Your task to perform on an android device: turn off translation in the chrome app Image 0: 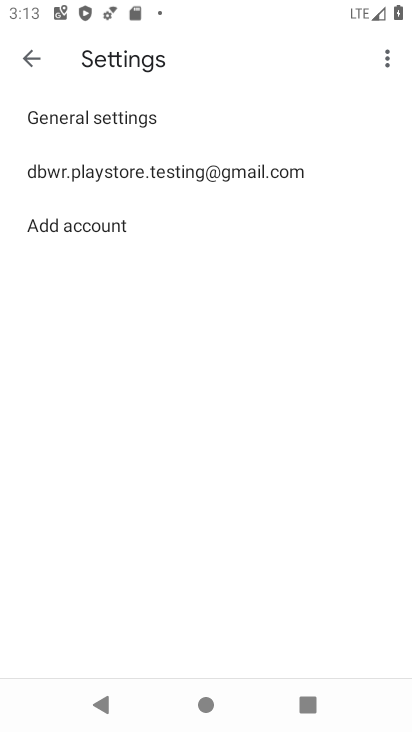
Step 0: press home button
Your task to perform on an android device: turn off translation in the chrome app Image 1: 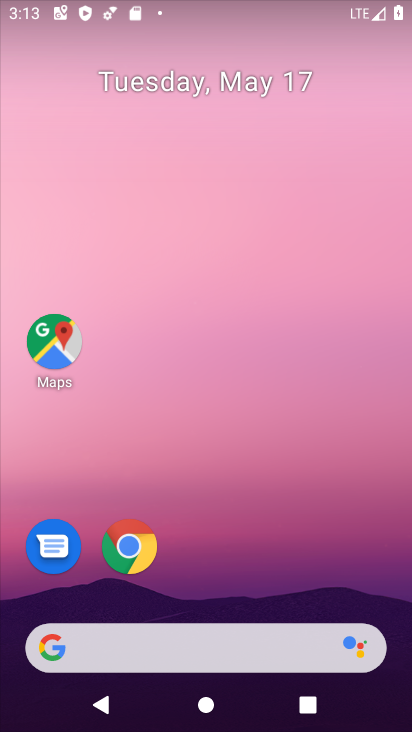
Step 1: click (123, 573)
Your task to perform on an android device: turn off translation in the chrome app Image 2: 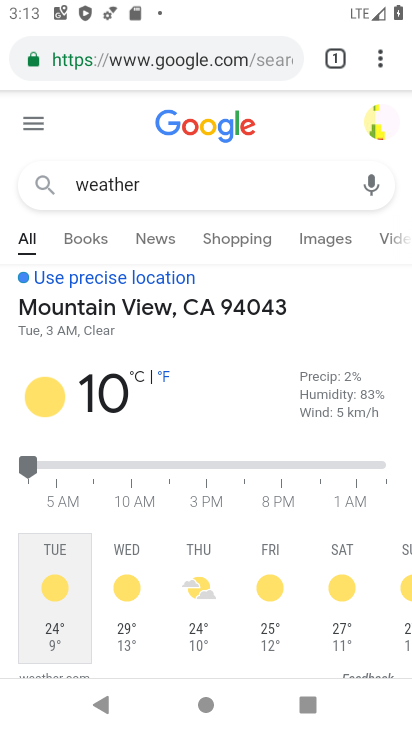
Step 2: drag from (380, 54) to (237, 577)
Your task to perform on an android device: turn off translation in the chrome app Image 3: 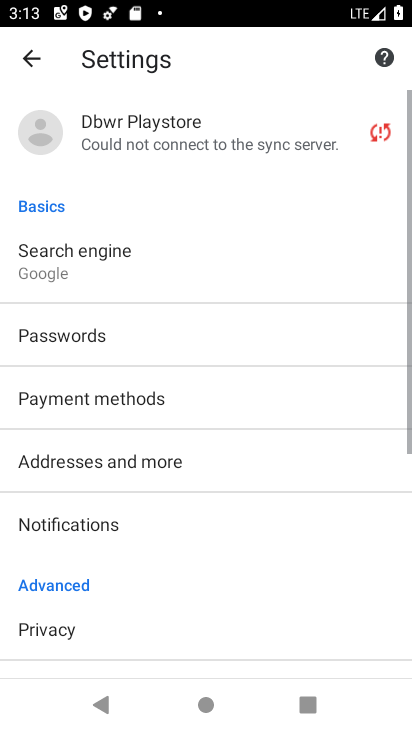
Step 3: drag from (135, 599) to (183, 88)
Your task to perform on an android device: turn off translation in the chrome app Image 4: 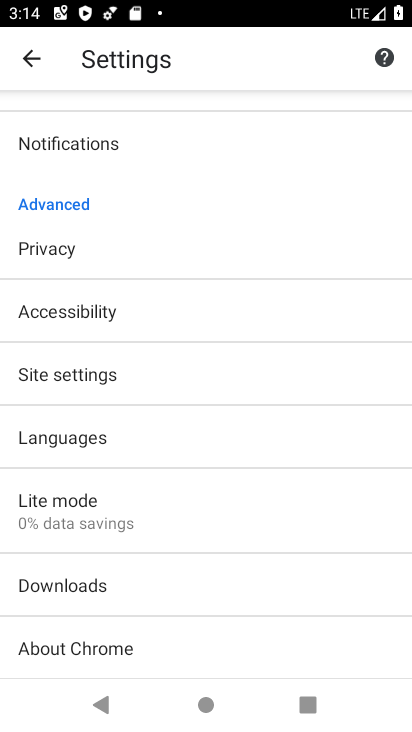
Step 4: click (120, 437)
Your task to perform on an android device: turn off translation in the chrome app Image 5: 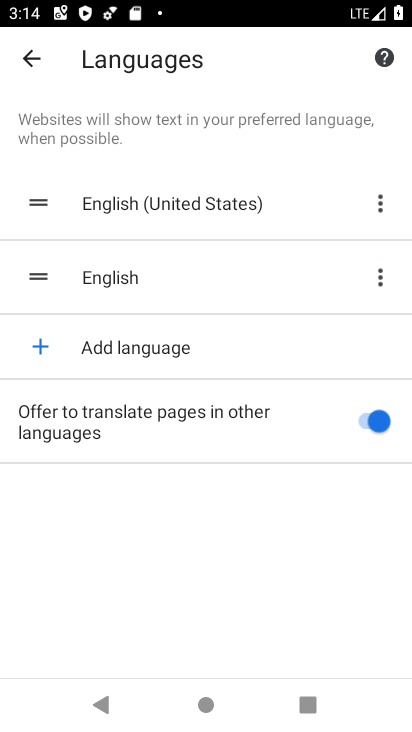
Step 5: task complete